Your task to perform on an android device: Do I have any events this weekend? Image 0: 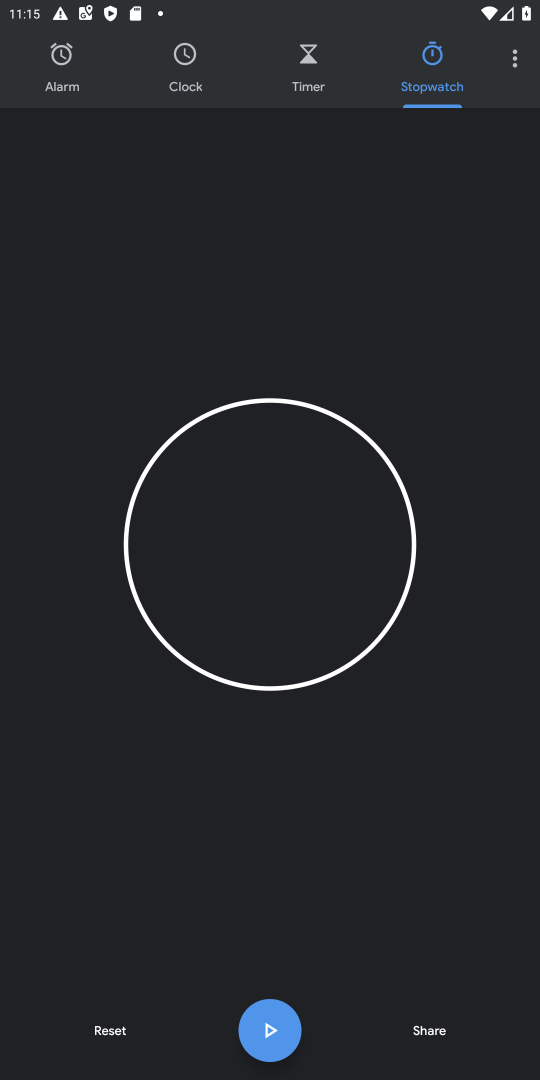
Step 0: press home button
Your task to perform on an android device: Do I have any events this weekend? Image 1: 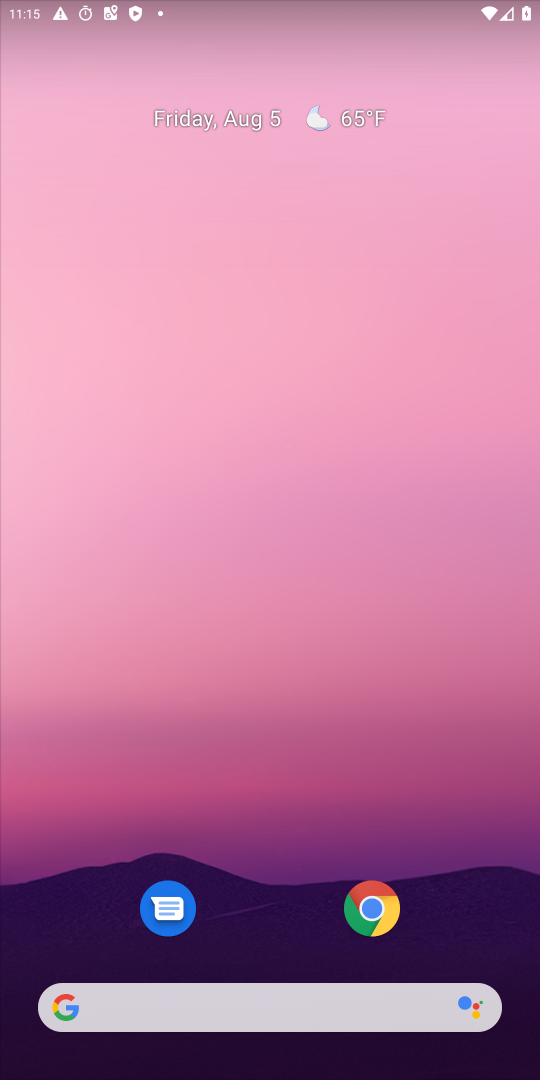
Step 1: drag from (43, 1039) to (220, 404)
Your task to perform on an android device: Do I have any events this weekend? Image 2: 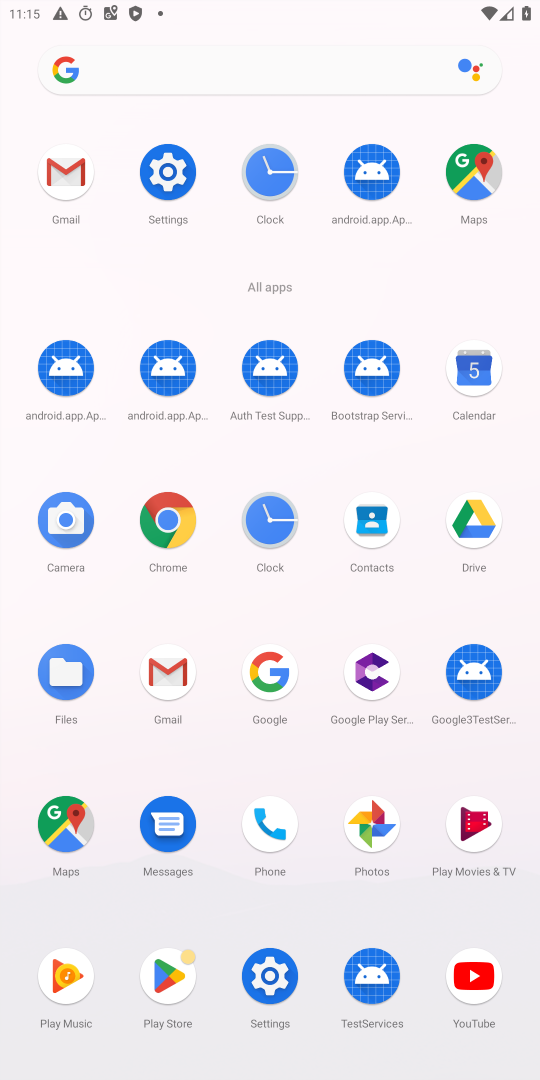
Step 2: click (452, 399)
Your task to perform on an android device: Do I have any events this weekend? Image 3: 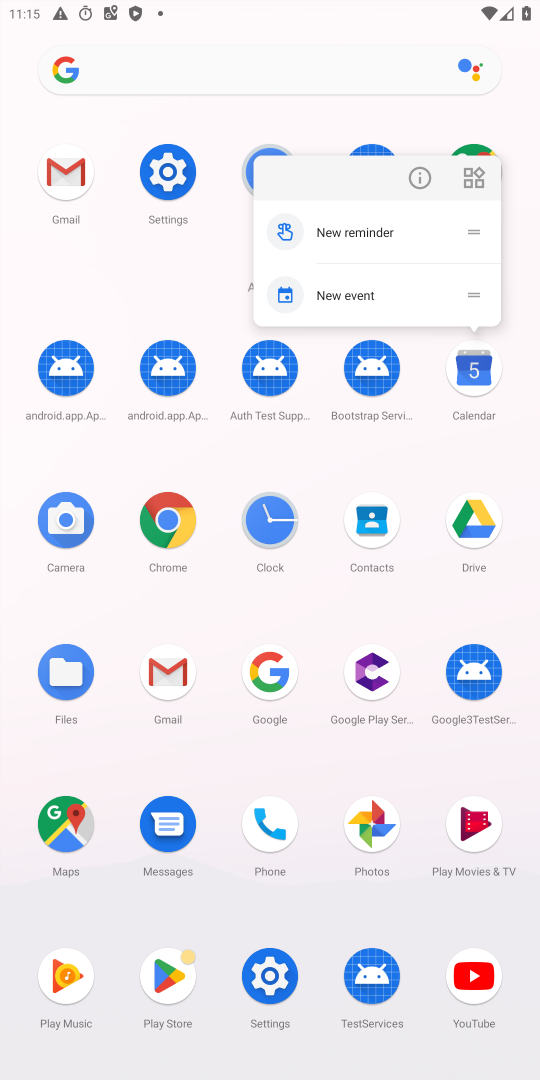
Step 3: click (471, 383)
Your task to perform on an android device: Do I have any events this weekend? Image 4: 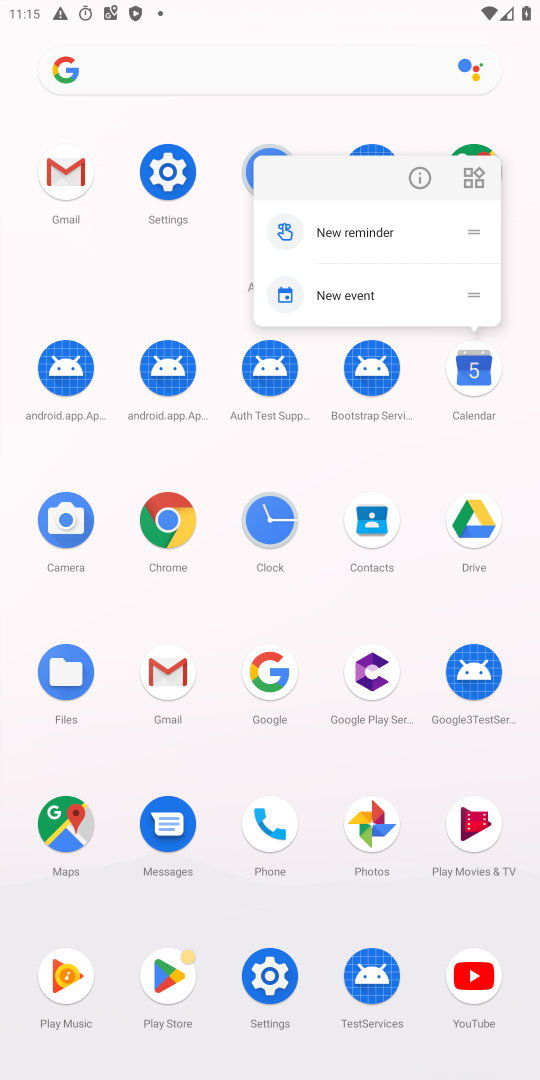
Step 4: click (471, 383)
Your task to perform on an android device: Do I have any events this weekend? Image 5: 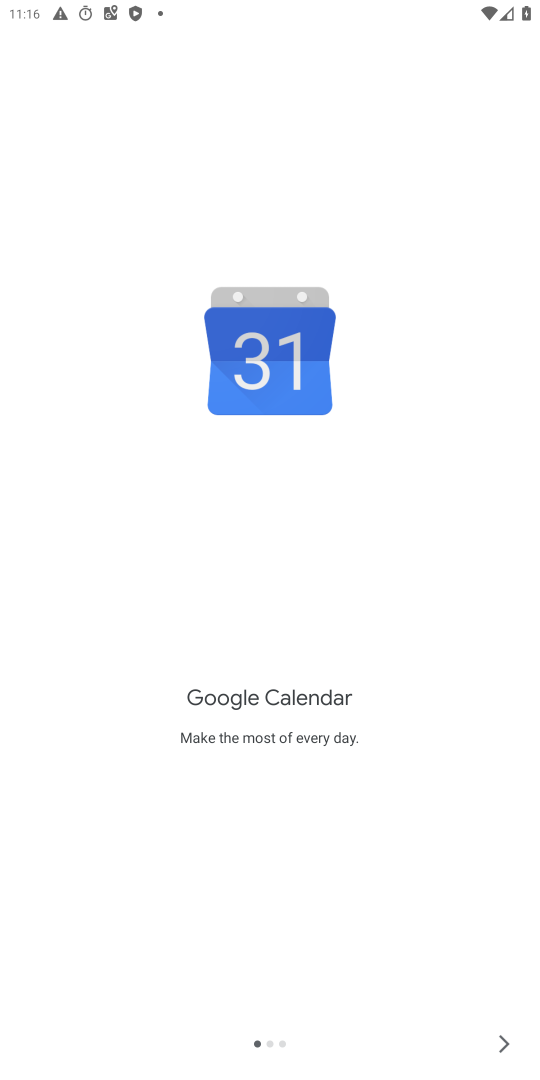
Step 5: click (471, 383)
Your task to perform on an android device: Do I have any events this weekend? Image 6: 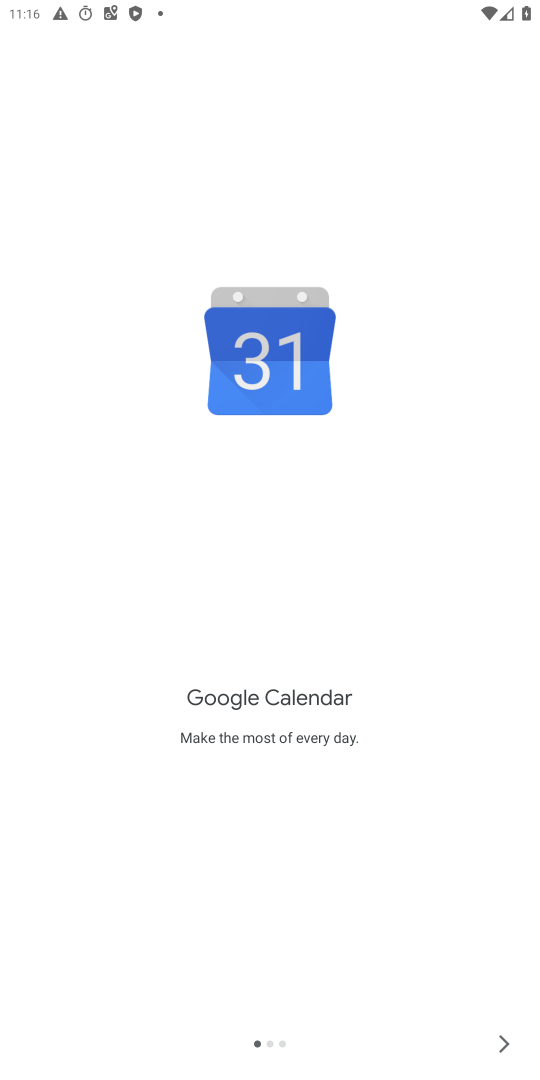
Step 6: click (502, 1033)
Your task to perform on an android device: Do I have any events this weekend? Image 7: 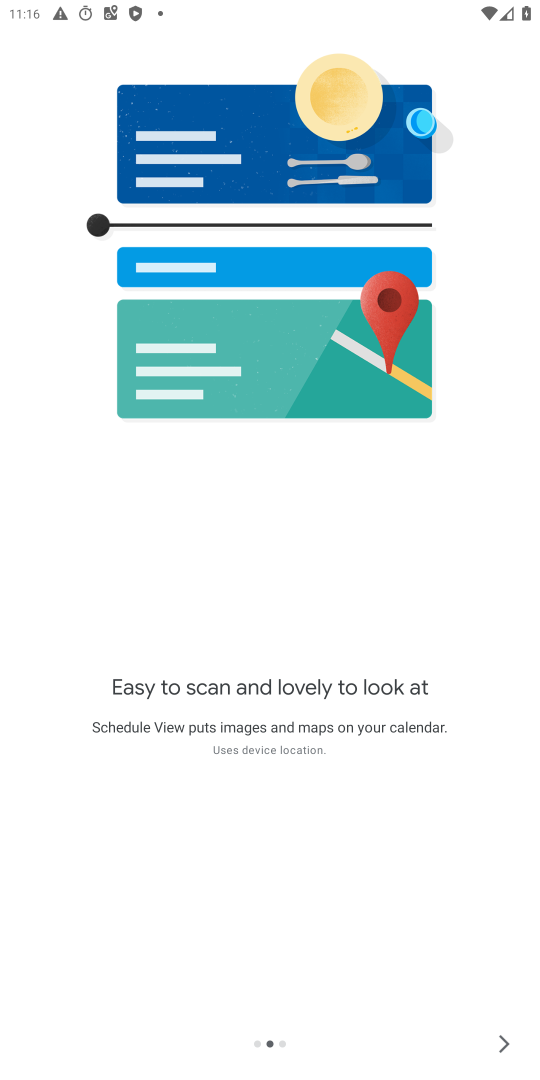
Step 7: click (490, 1041)
Your task to perform on an android device: Do I have any events this weekend? Image 8: 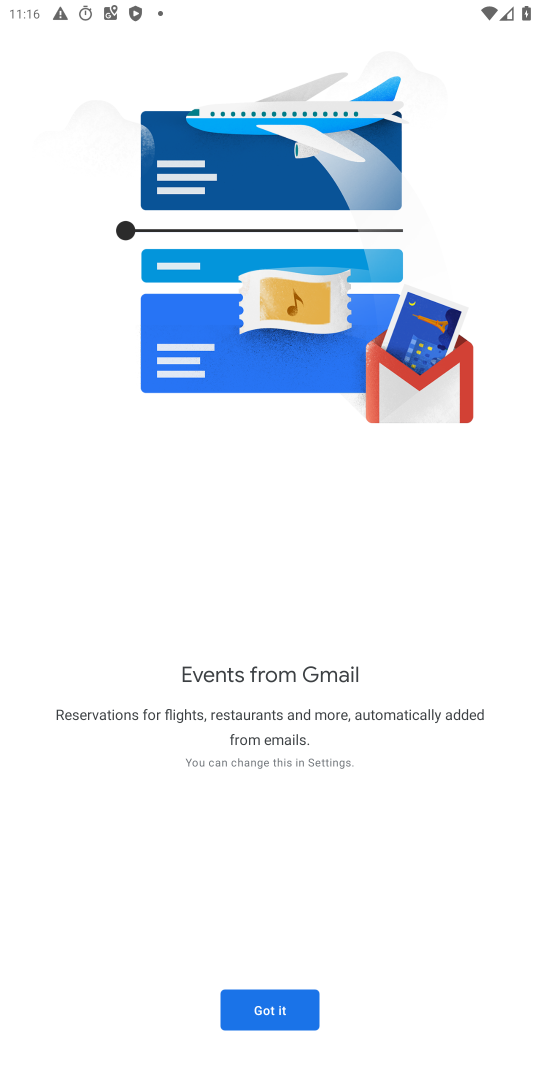
Step 8: click (255, 1013)
Your task to perform on an android device: Do I have any events this weekend? Image 9: 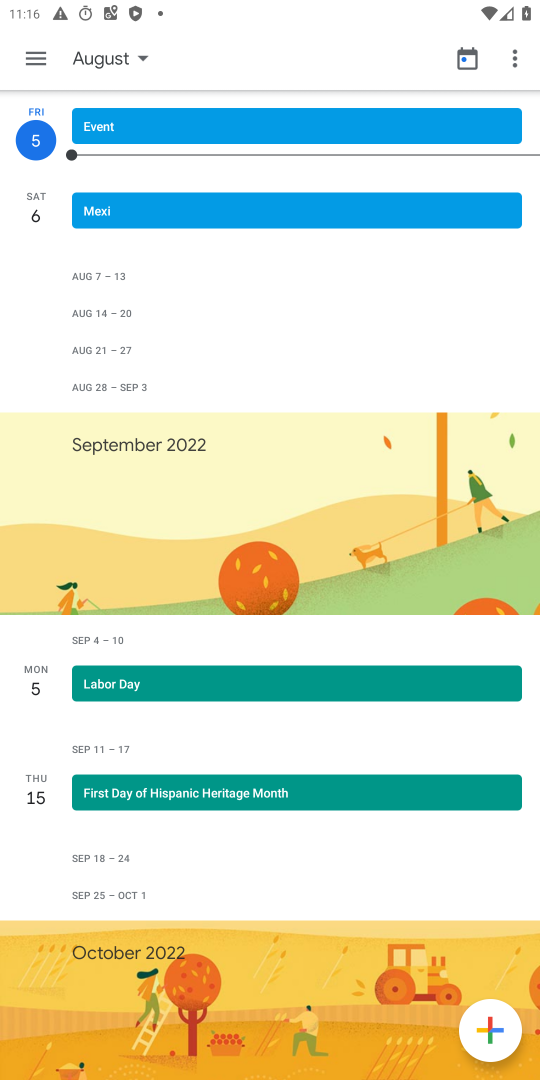
Step 9: click (146, 56)
Your task to perform on an android device: Do I have any events this weekend? Image 10: 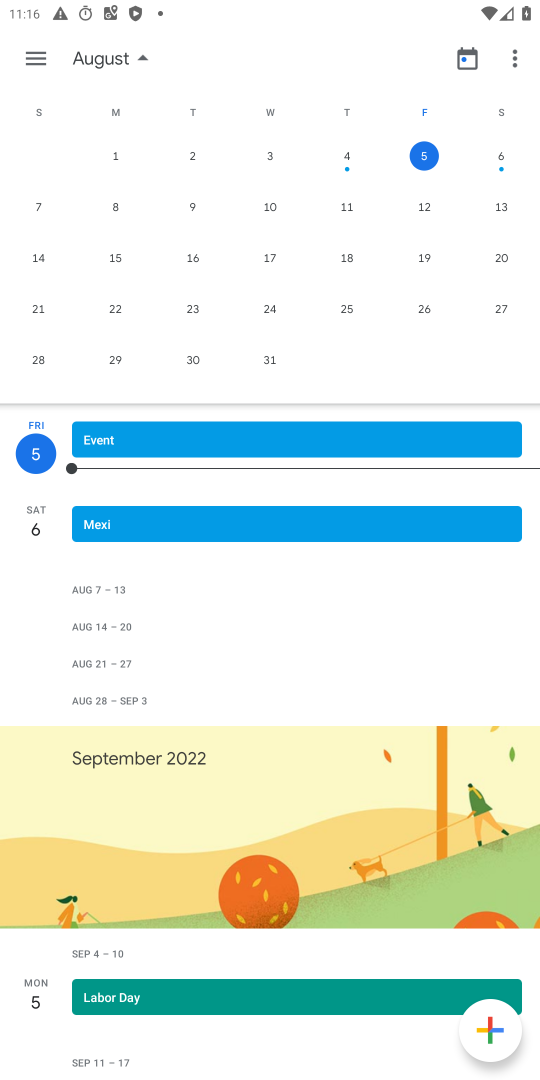
Step 10: click (140, 57)
Your task to perform on an android device: Do I have any events this weekend? Image 11: 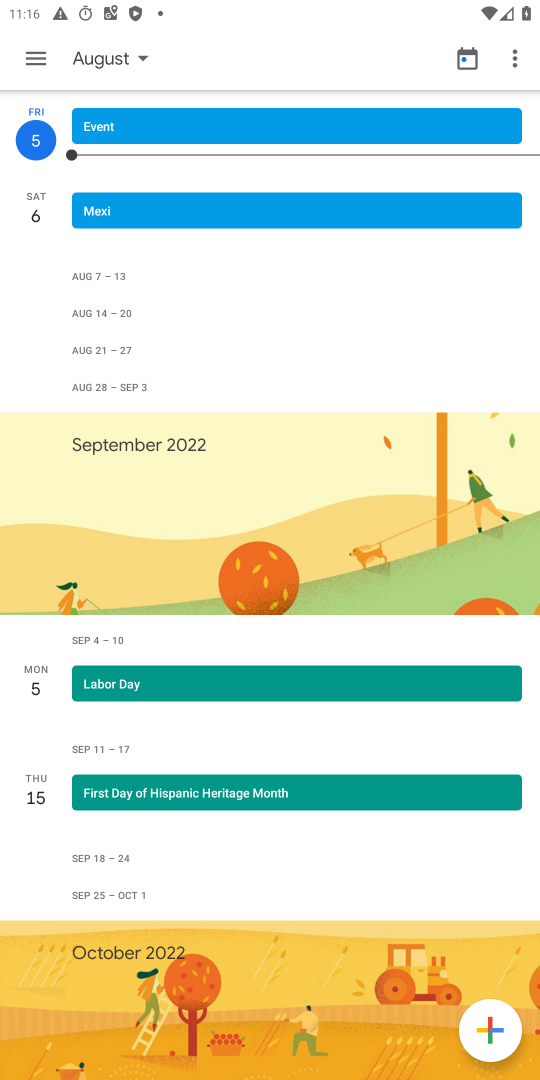
Step 11: task complete